Your task to perform on an android device: turn on javascript in the chrome app Image 0: 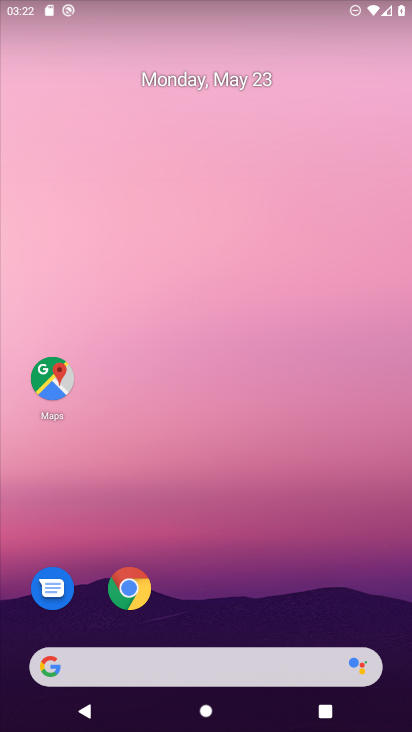
Step 0: click (126, 587)
Your task to perform on an android device: turn on javascript in the chrome app Image 1: 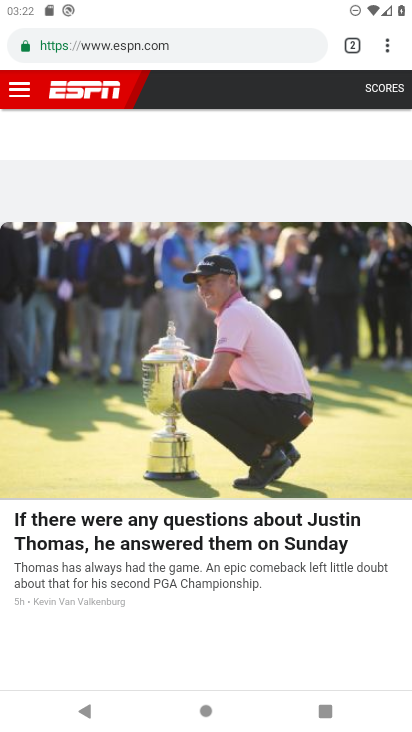
Step 1: click (386, 52)
Your task to perform on an android device: turn on javascript in the chrome app Image 2: 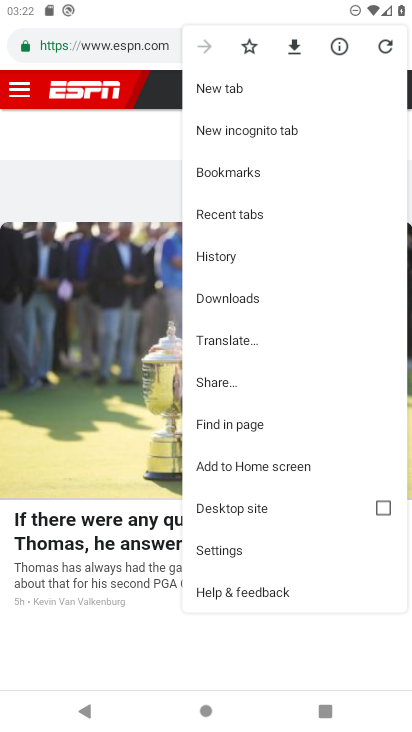
Step 2: click (232, 544)
Your task to perform on an android device: turn on javascript in the chrome app Image 3: 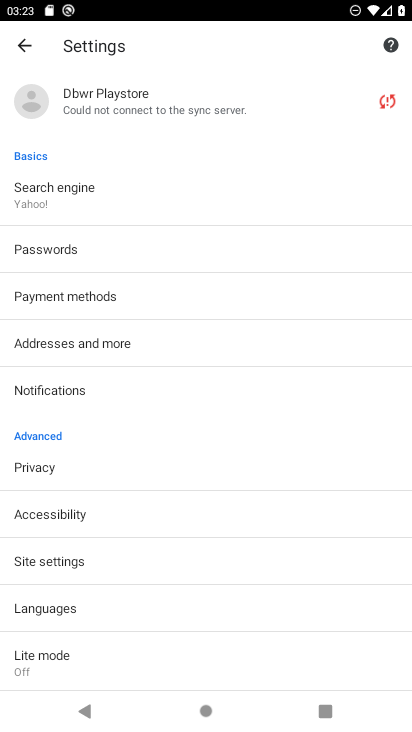
Step 3: click (52, 559)
Your task to perform on an android device: turn on javascript in the chrome app Image 4: 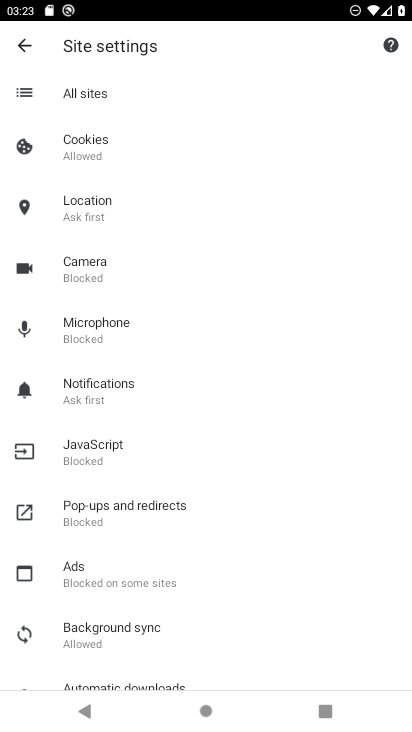
Step 4: click (75, 458)
Your task to perform on an android device: turn on javascript in the chrome app Image 5: 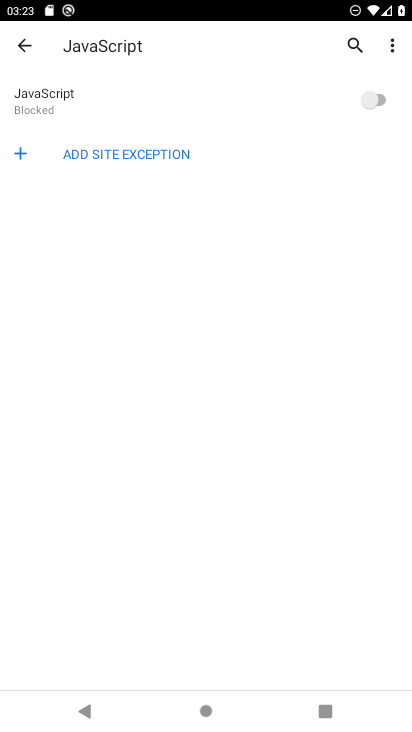
Step 5: click (381, 99)
Your task to perform on an android device: turn on javascript in the chrome app Image 6: 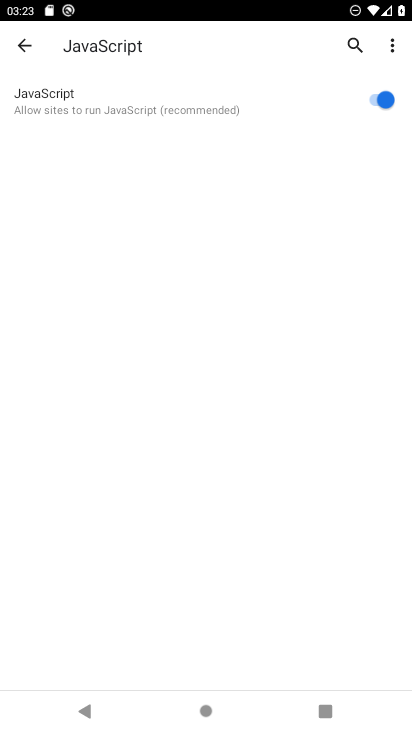
Step 6: task complete